Your task to perform on an android device: toggle javascript in the chrome app Image 0: 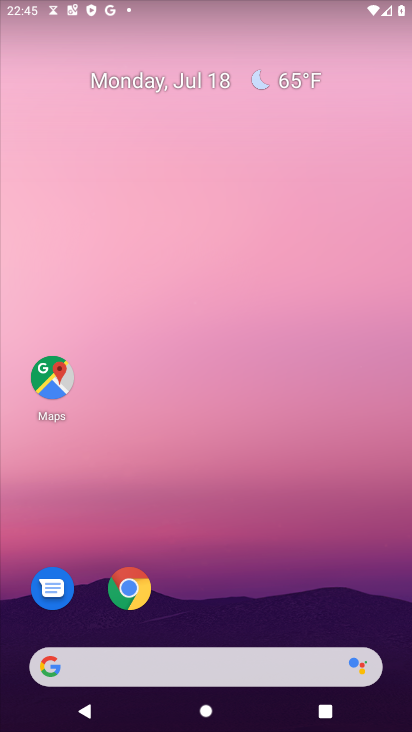
Step 0: click (130, 589)
Your task to perform on an android device: toggle javascript in the chrome app Image 1: 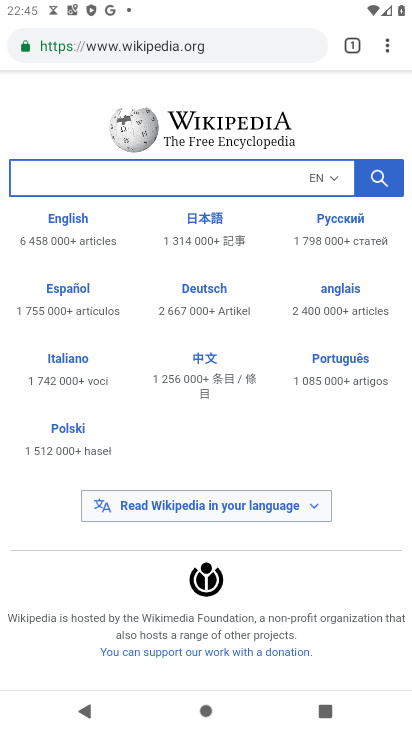
Step 1: click (388, 44)
Your task to perform on an android device: toggle javascript in the chrome app Image 2: 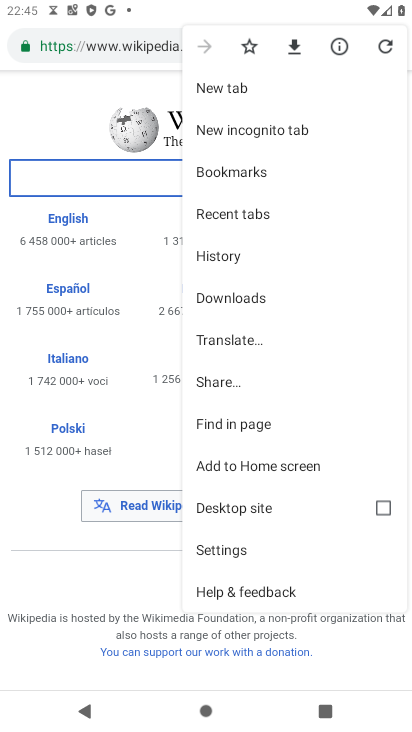
Step 2: click (221, 550)
Your task to perform on an android device: toggle javascript in the chrome app Image 3: 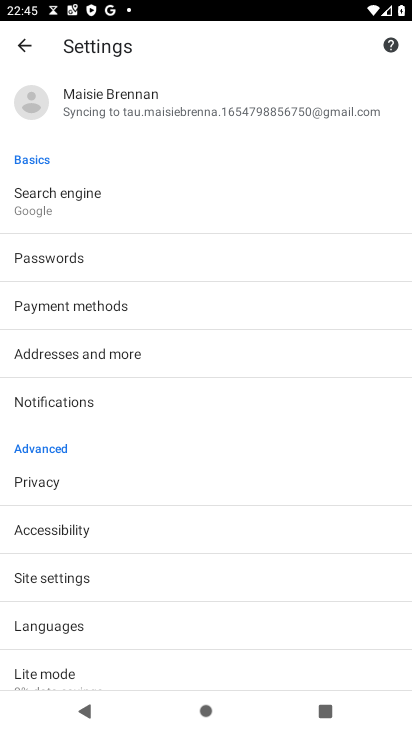
Step 3: drag from (139, 598) to (201, 362)
Your task to perform on an android device: toggle javascript in the chrome app Image 4: 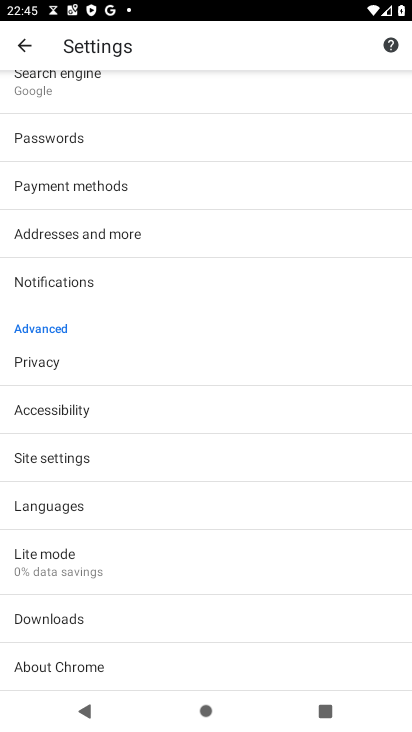
Step 4: click (35, 458)
Your task to perform on an android device: toggle javascript in the chrome app Image 5: 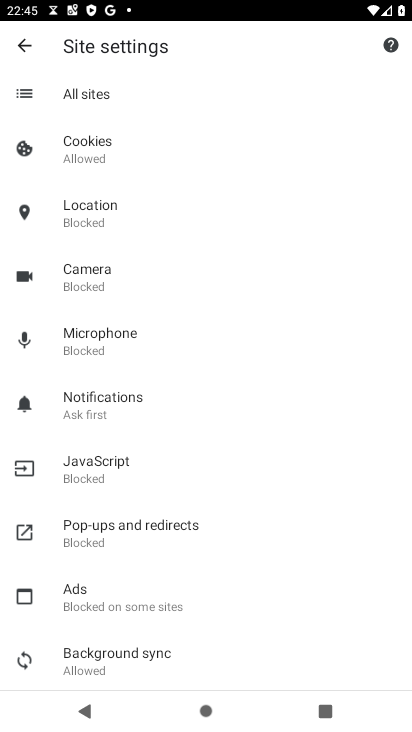
Step 5: click (109, 462)
Your task to perform on an android device: toggle javascript in the chrome app Image 6: 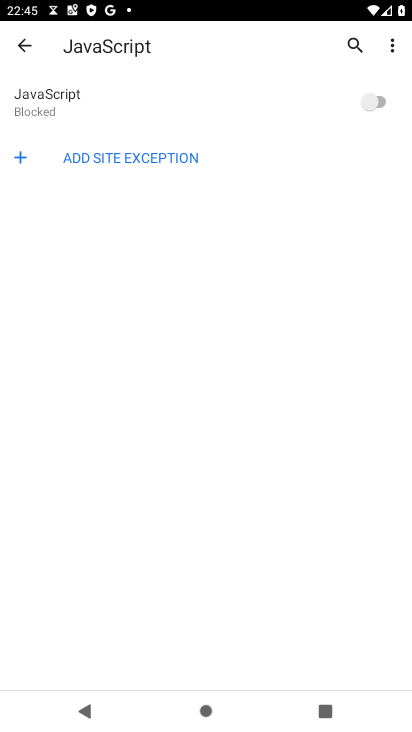
Step 6: click (384, 96)
Your task to perform on an android device: toggle javascript in the chrome app Image 7: 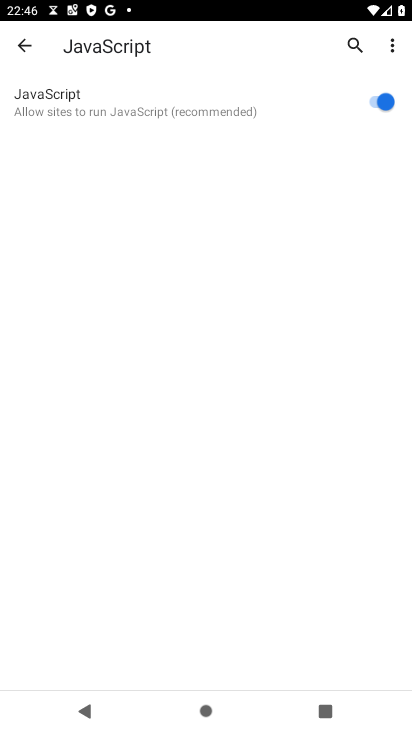
Step 7: task complete